Your task to perform on an android device: allow notifications from all sites in the chrome app Image 0: 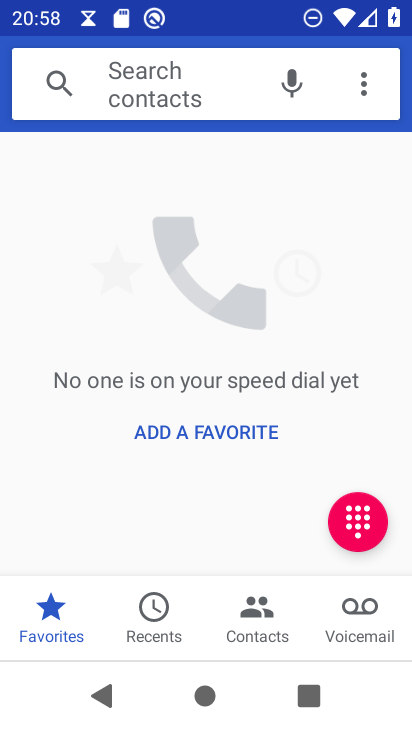
Step 0: press home button
Your task to perform on an android device: allow notifications from all sites in the chrome app Image 1: 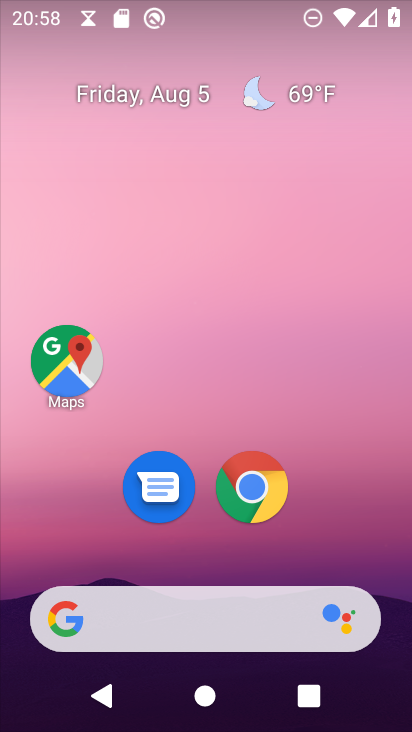
Step 1: click (246, 487)
Your task to perform on an android device: allow notifications from all sites in the chrome app Image 2: 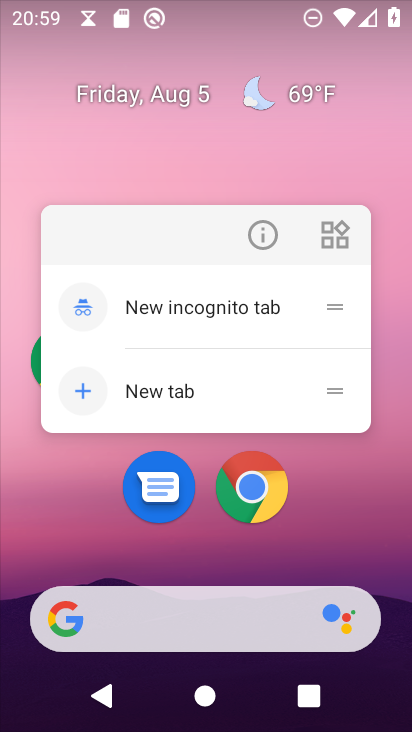
Step 2: click (261, 492)
Your task to perform on an android device: allow notifications from all sites in the chrome app Image 3: 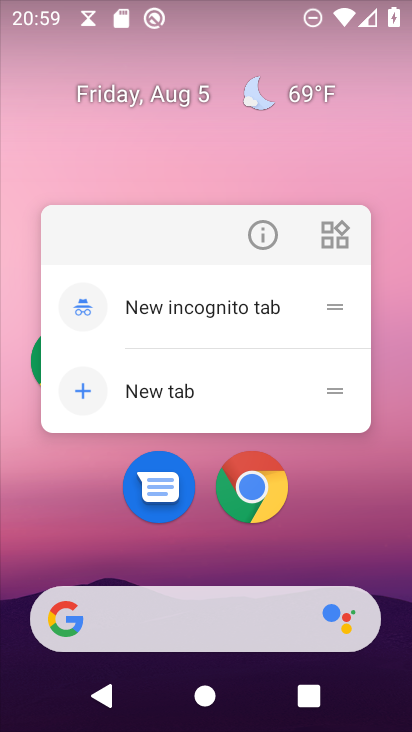
Step 3: click (261, 490)
Your task to perform on an android device: allow notifications from all sites in the chrome app Image 4: 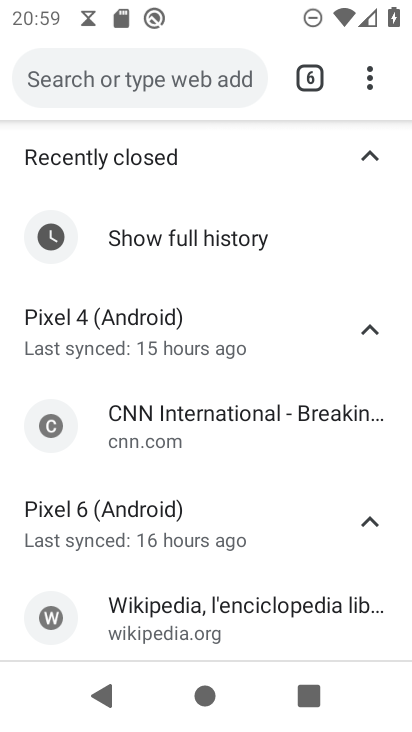
Step 4: drag from (377, 73) to (278, 531)
Your task to perform on an android device: allow notifications from all sites in the chrome app Image 5: 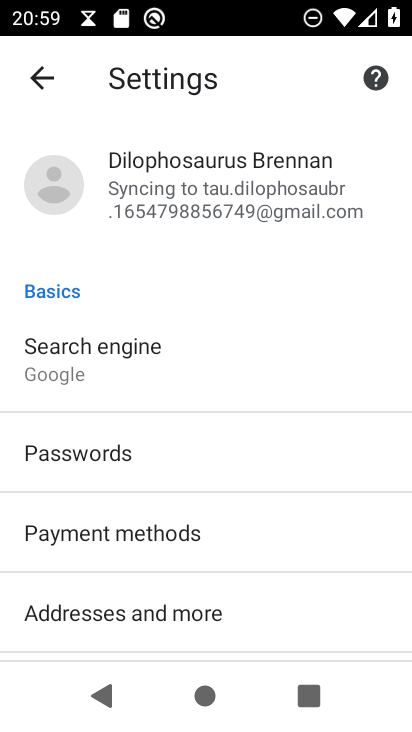
Step 5: drag from (257, 507) to (259, 189)
Your task to perform on an android device: allow notifications from all sites in the chrome app Image 6: 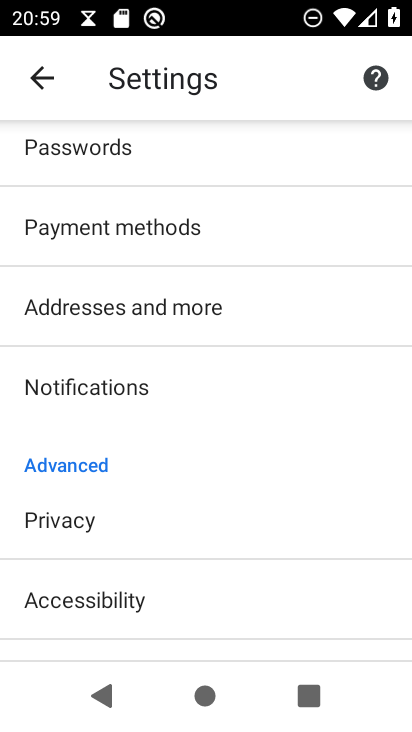
Step 6: drag from (221, 537) to (249, 177)
Your task to perform on an android device: allow notifications from all sites in the chrome app Image 7: 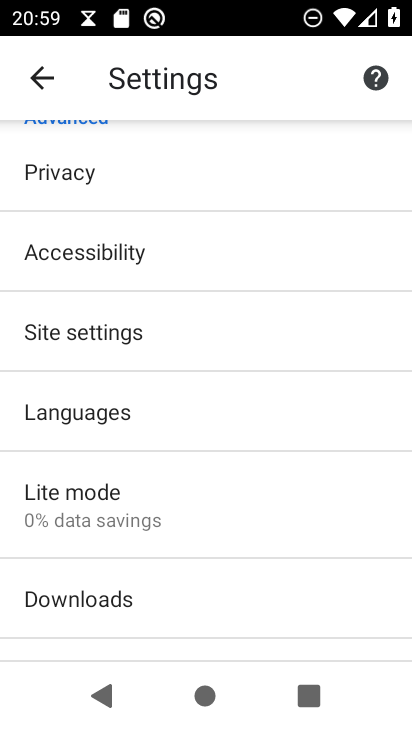
Step 7: click (119, 331)
Your task to perform on an android device: allow notifications from all sites in the chrome app Image 8: 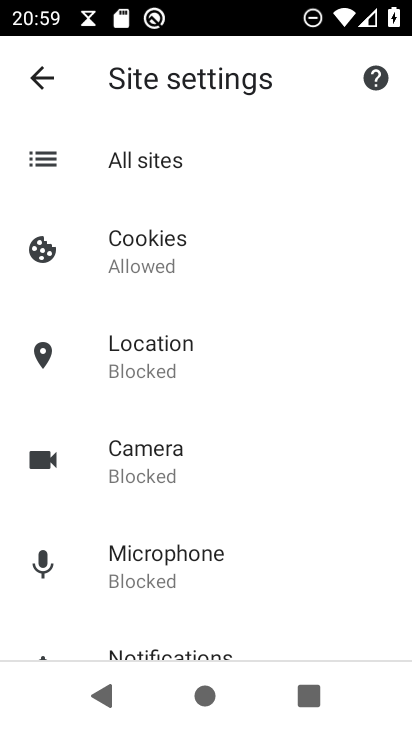
Step 8: drag from (245, 505) to (322, 208)
Your task to perform on an android device: allow notifications from all sites in the chrome app Image 9: 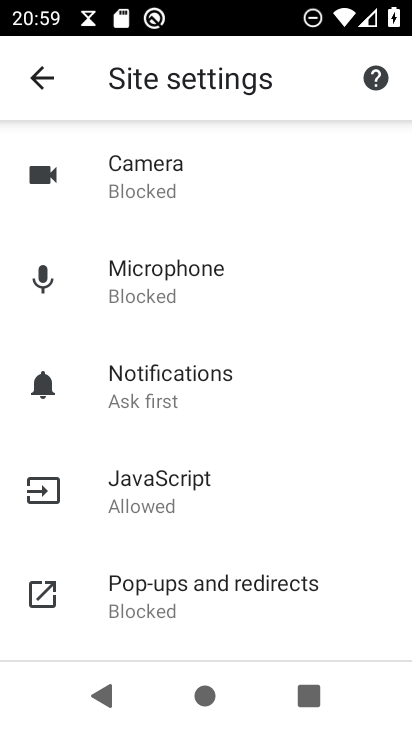
Step 9: click (161, 391)
Your task to perform on an android device: allow notifications from all sites in the chrome app Image 10: 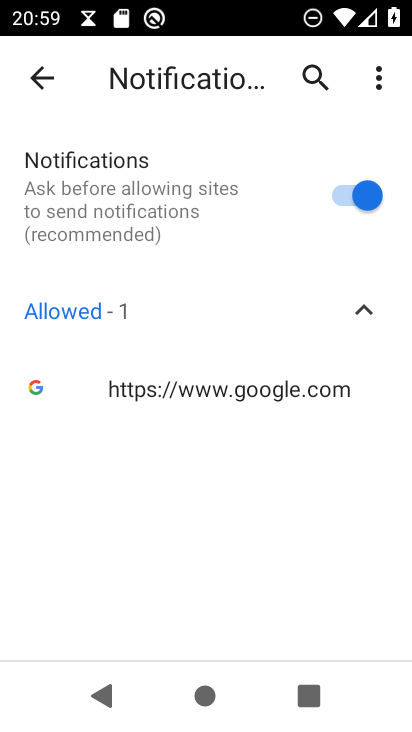
Step 10: task complete